Your task to perform on an android device: turn smart compose on in the gmail app Image 0: 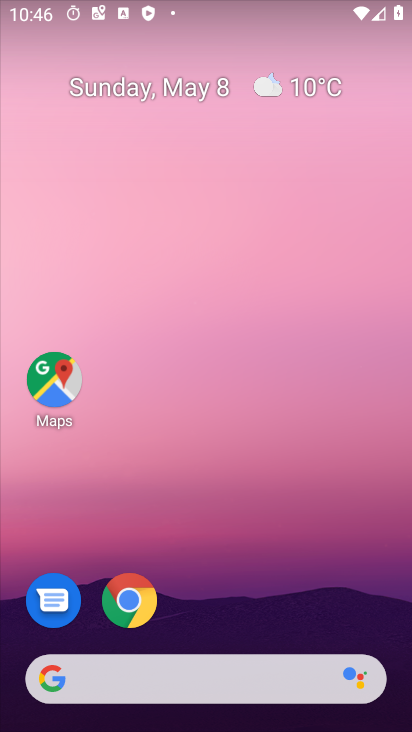
Step 0: drag from (257, 657) to (401, 246)
Your task to perform on an android device: turn smart compose on in the gmail app Image 1: 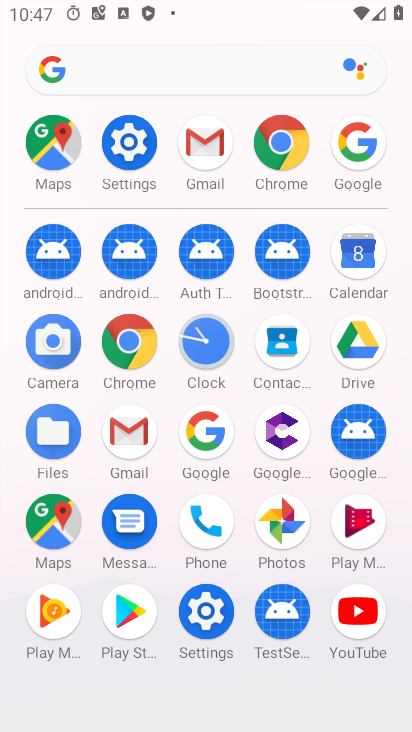
Step 1: click (127, 456)
Your task to perform on an android device: turn smart compose on in the gmail app Image 2: 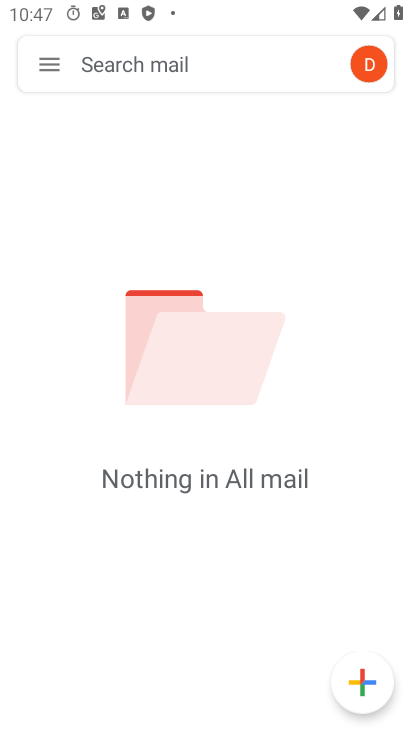
Step 2: click (50, 66)
Your task to perform on an android device: turn smart compose on in the gmail app Image 3: 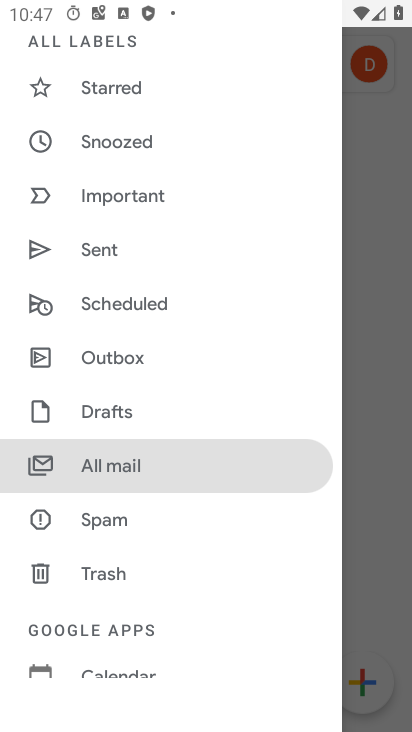
Step 3: drag from (143, 581) to (188, 198)
Your task to perform on an android device: turn smart compose on in the gmail app Image 4: 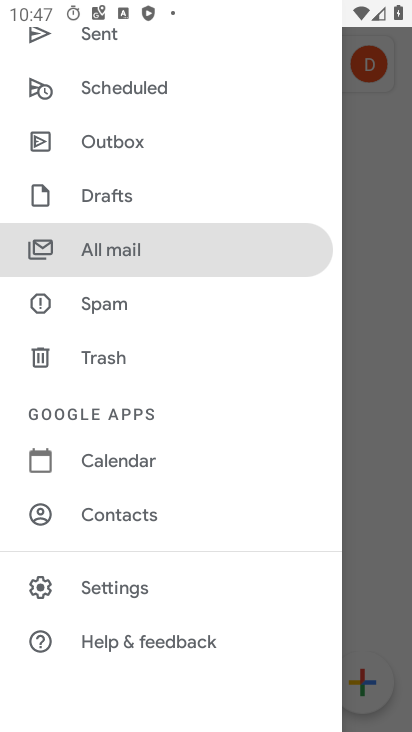
Step 4: click (119, 596)
Your task to perform on an android device: turn smart compose on in the gmail app Image 5: 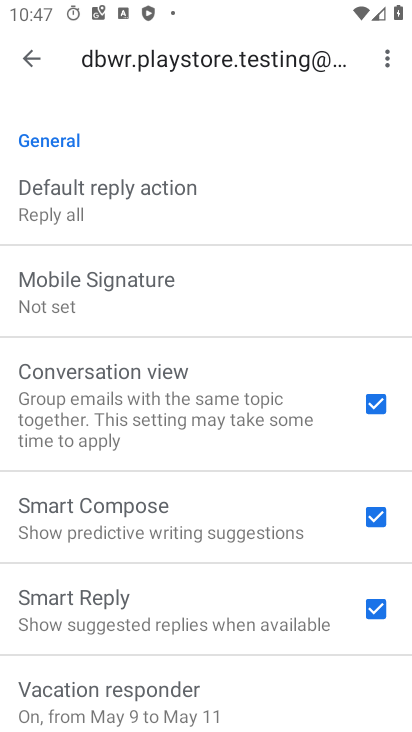
Step 5: task complete